Your task to perform on an android device: When is my next meeting? Image 0: 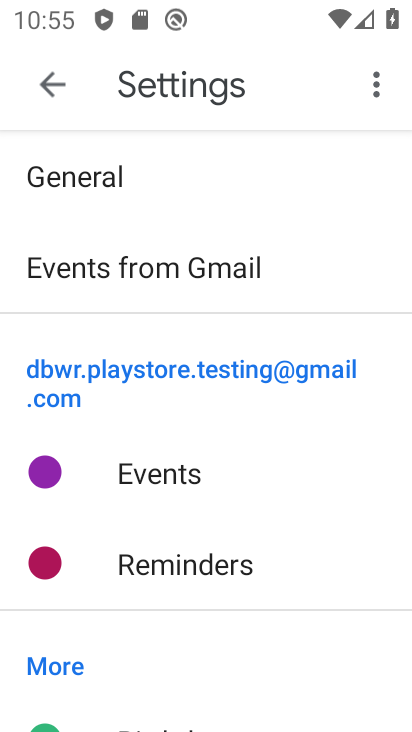
Step 0: press home button
Your task to perform on an android device: When is my next meeting? Image 1: 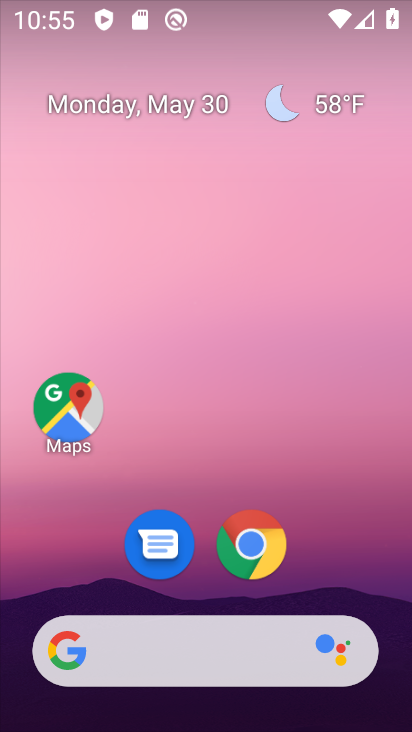
Step 1: drag from (356, 554) to (288, 106)
Your task to perform on an android device: When is my next meeting? Image 2: 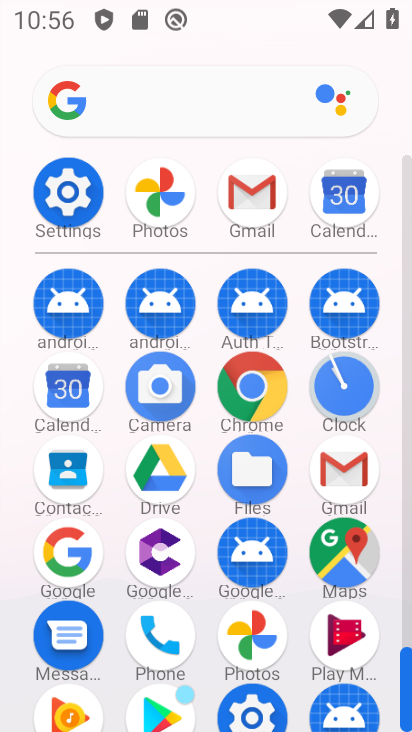
Step 2: click (328, 186)
Your task to perform on an android device: When is my next meeting? Image 3: 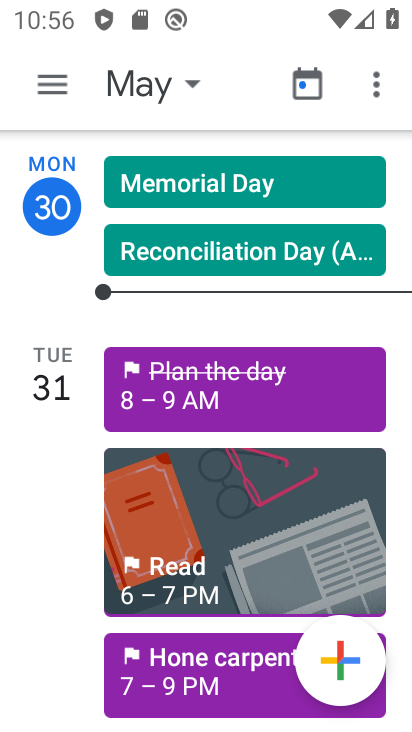
Step 3: task complete